Your task to perform on an android device: Go to network settings Image 0: 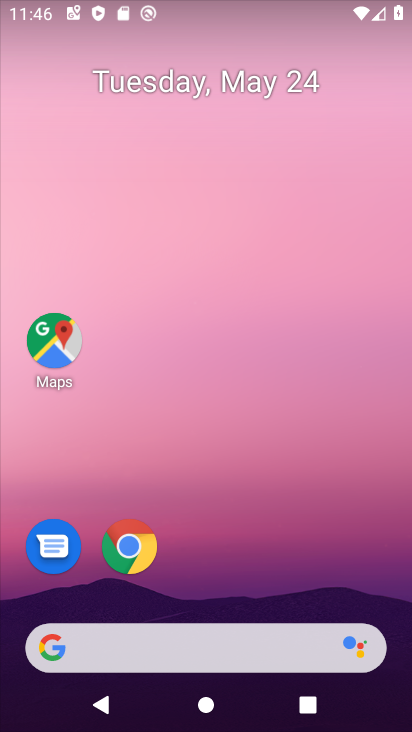
Step 0: drag from (233, 598) to (151, 120)
Your task to perform on an android device: Go to network settings Image 1: 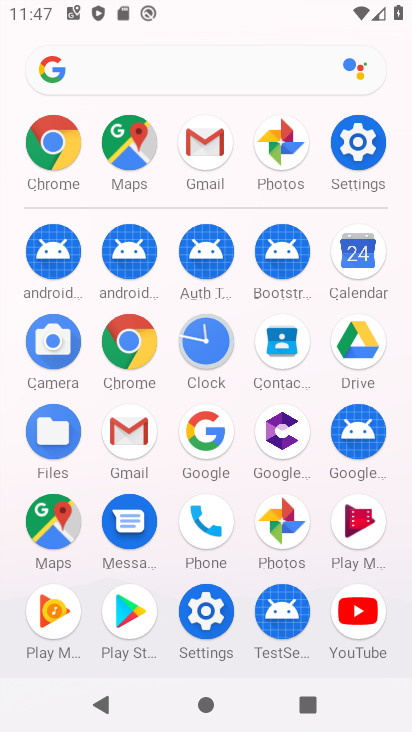
Step 1: click (363, 151)
Your task to perform on an android device: Go to network settings Image 2: 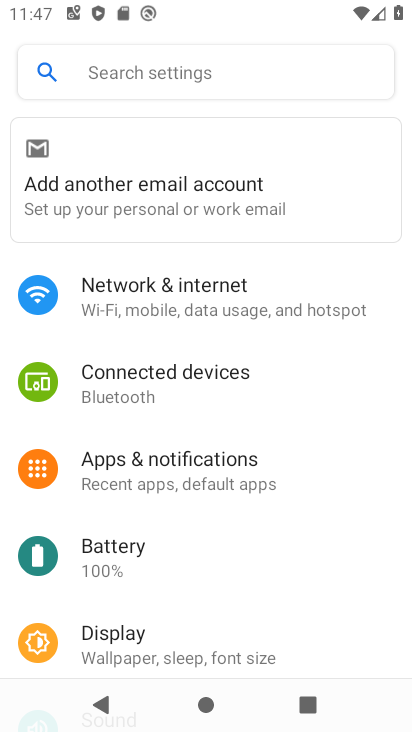
Step 2: click (309, 276)
Your task to perform on an android device: Go to network settings Image 3: 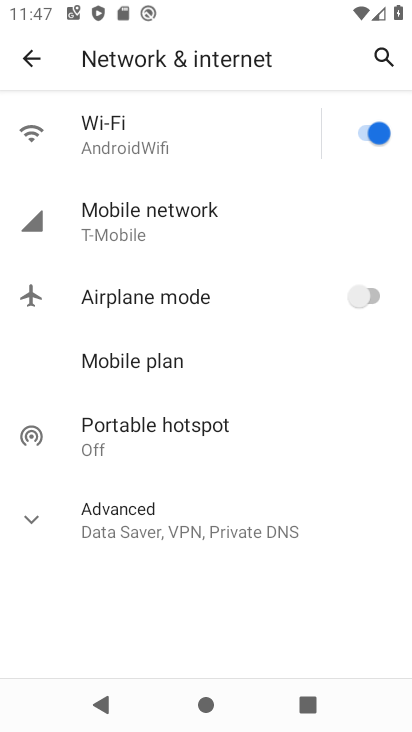
Step 3: task complete